Your task to perform on an android device: Open Wikipedia Image 0: 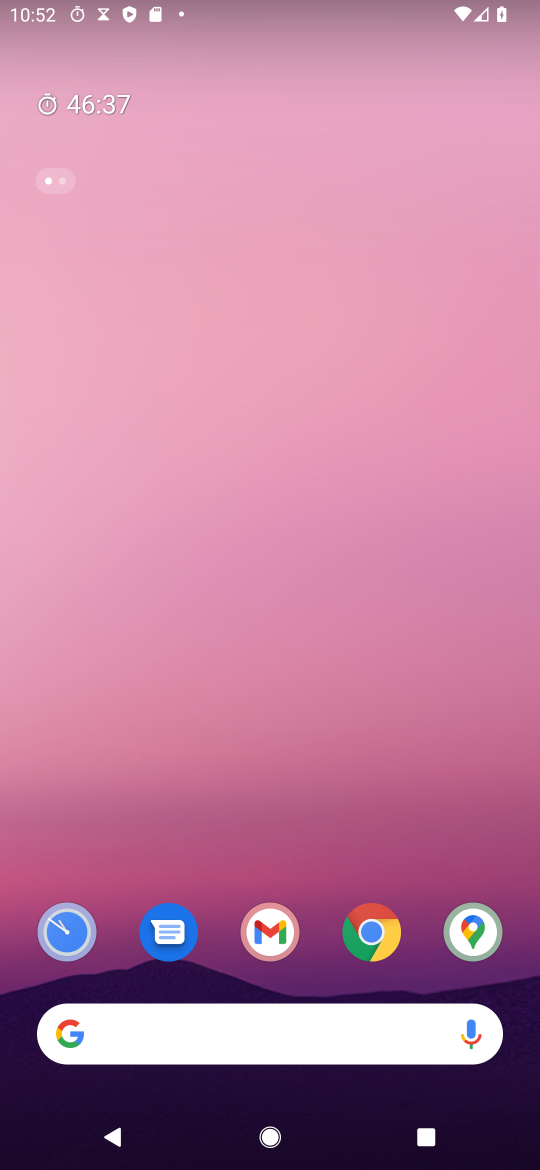
Step 0: click (375, 938)
Your task to perform on an android device: Open Wikipedia Image 1: 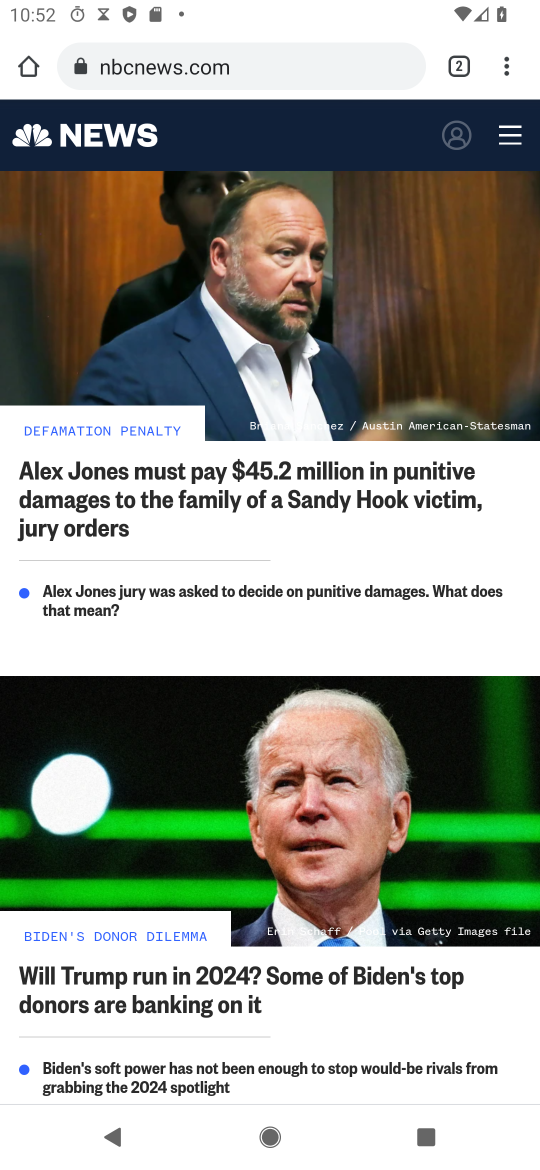
Step 1: click (471, 76)
Your task to perform on an android device: Open Wikipedia Image 2: 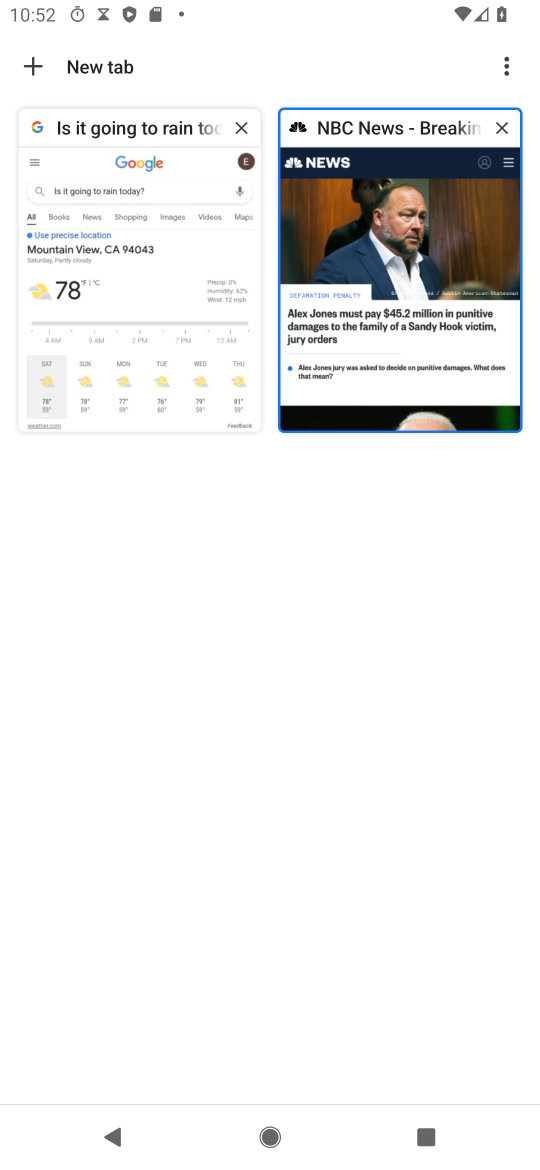
Step 2: click (114, 59)
Your task to perform on an android device: Open Wikipedia Image 3: 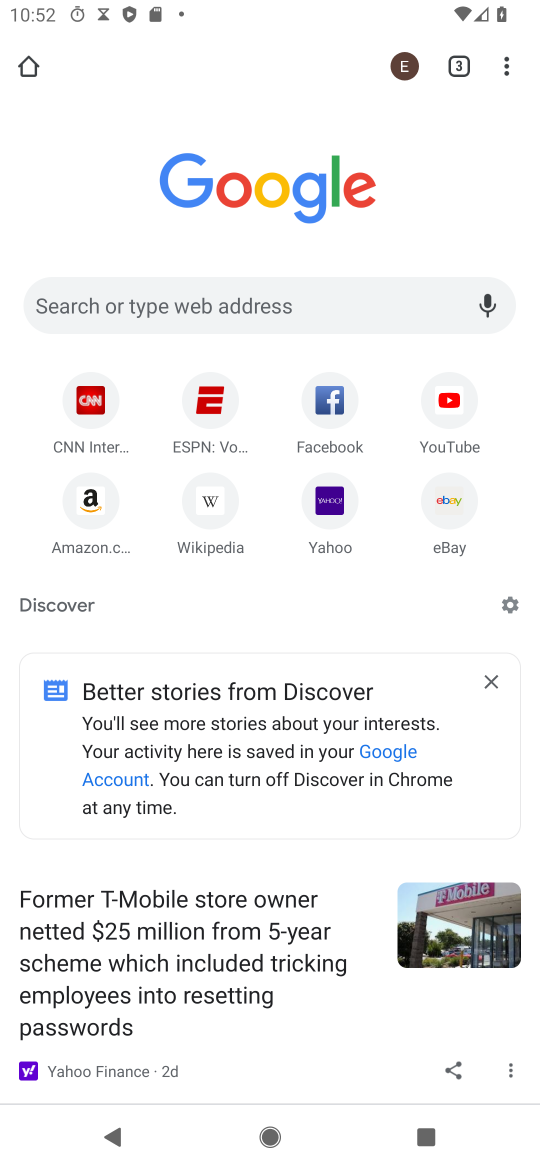
Step 3: click (225, 504)
Your task to perform on an android device: Open Wikipedia Image 4: 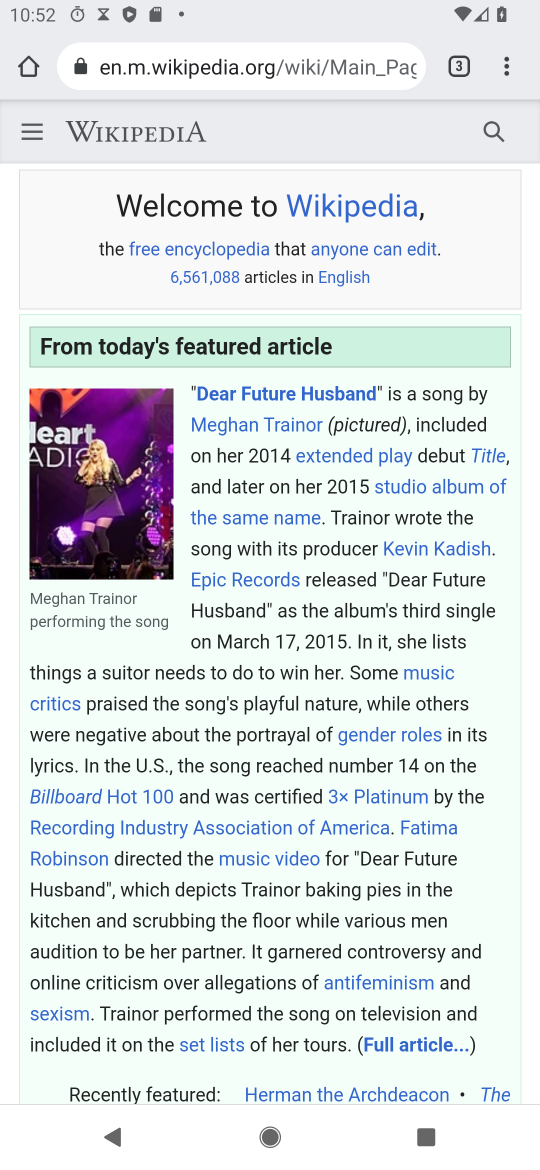
Step 4: task complete